Your task to perform on an android device: What's a good restaurant in San Diego? Image 0: 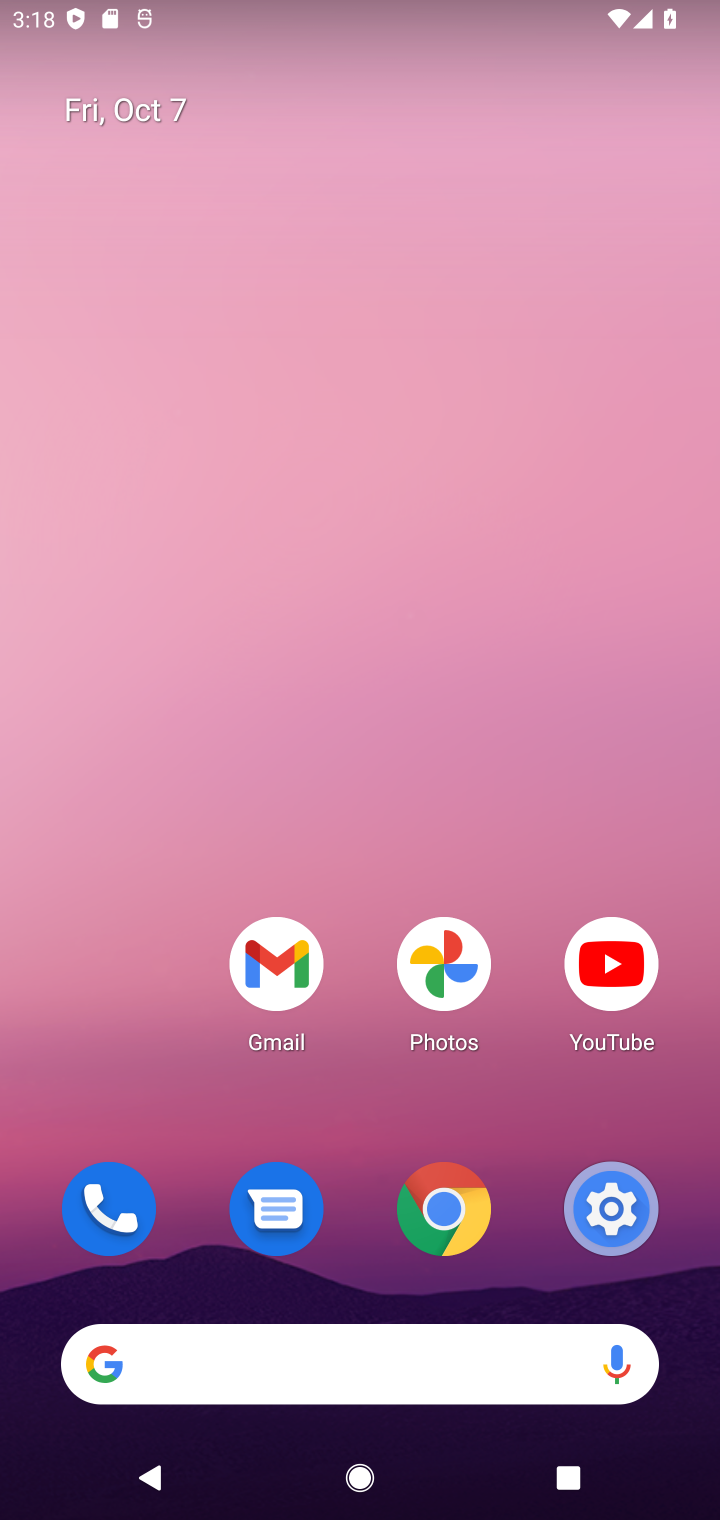
Step 0: press home button
Your task to perform on an android device: What's a good restaurant in San Diego? Image 1: 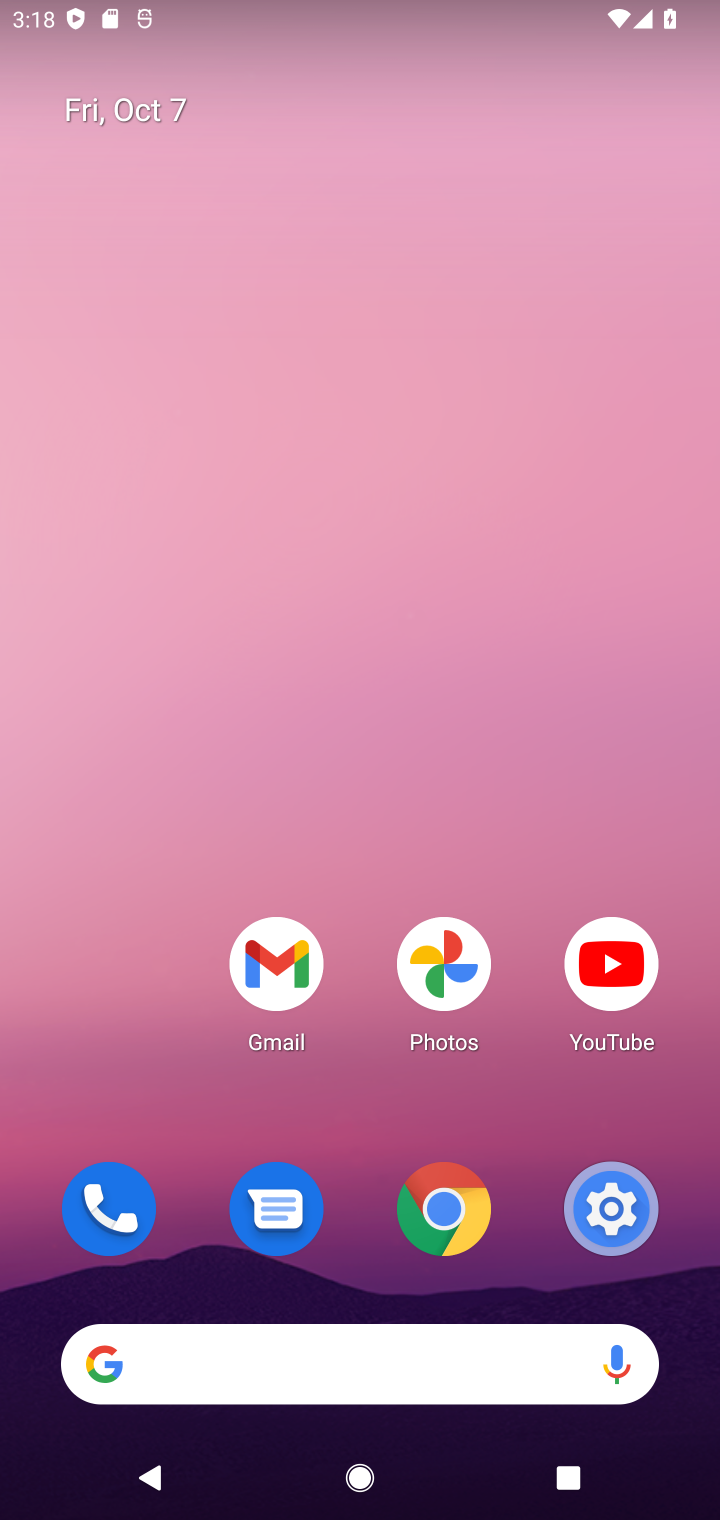
Step 1: click (330, 1377)
Your task to perform on an android device: What's a good restaurant in San Diego? Image 2: 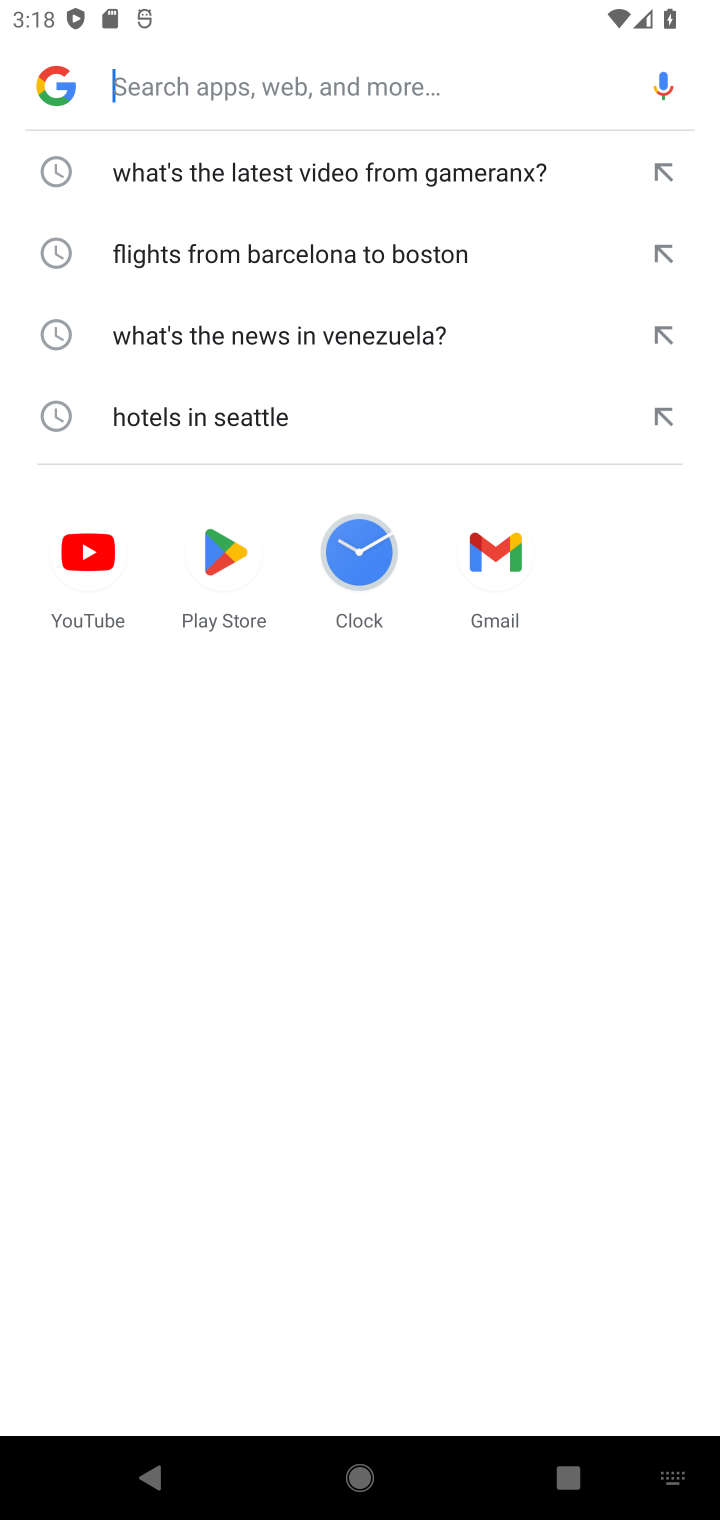
Step 2: type "What's a good restaurant in San Diego?"
Your task to perform on an android device: What's a good restaurant in San Diego? Image 3: 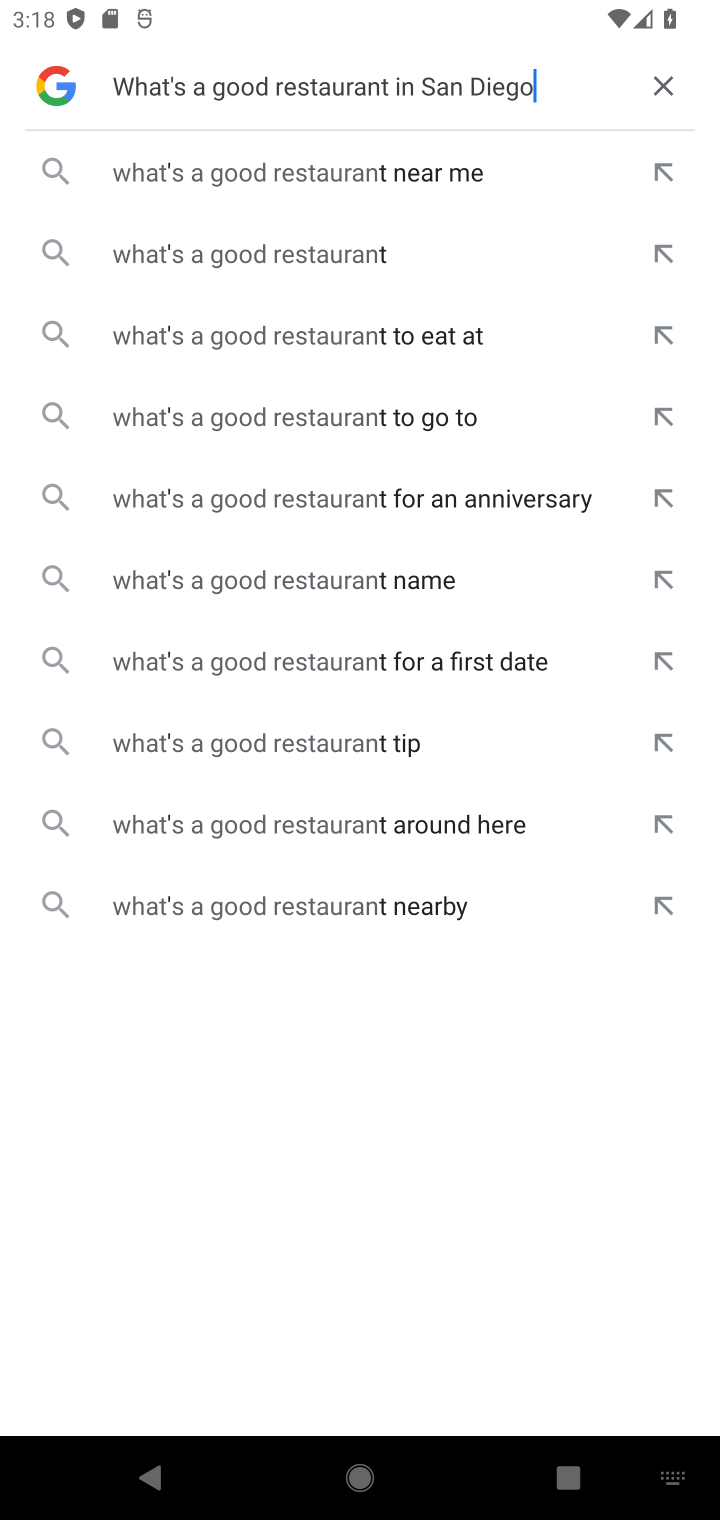
Step 3: press enter
Your task to perform on an android device: What's a good restaurant in San Diego? Image 4: 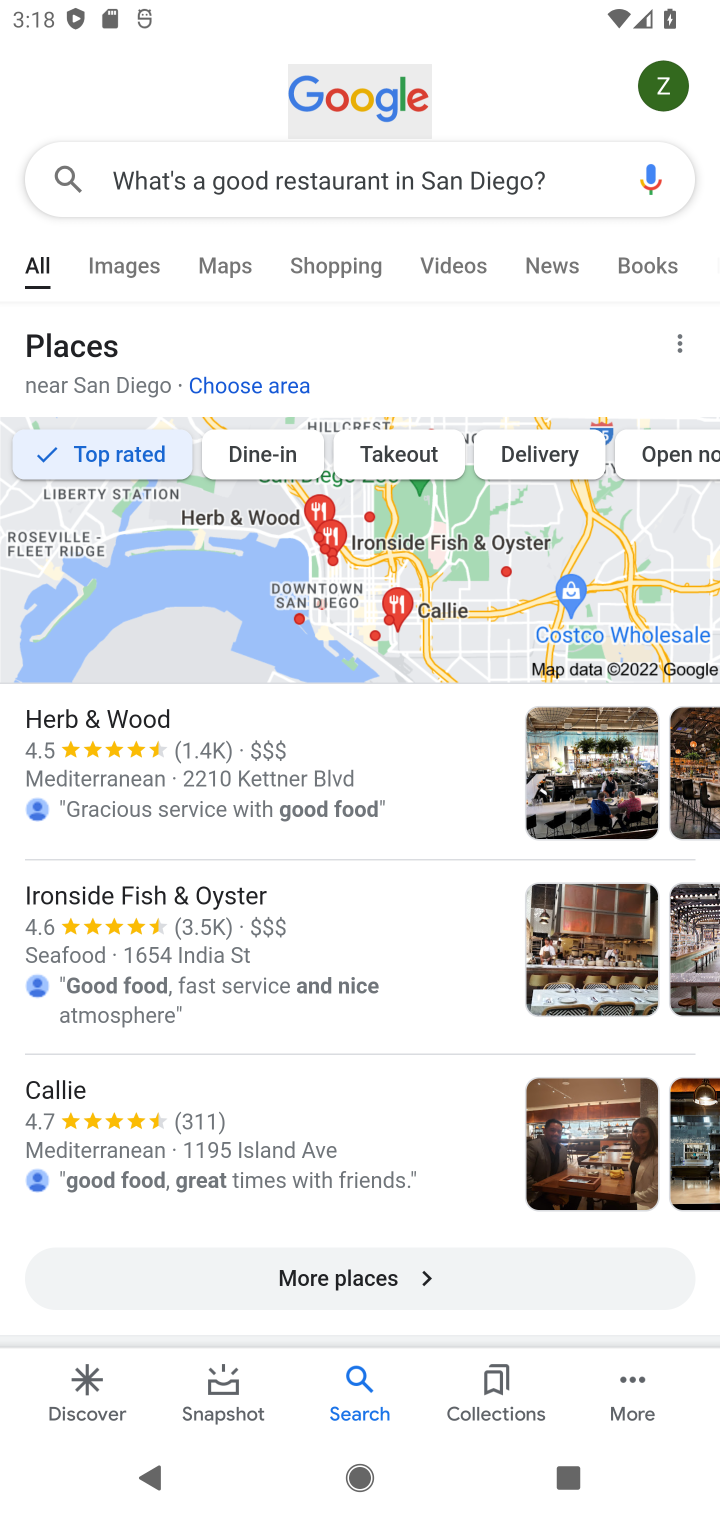
Step 4: task complete